Your task to perform on an android device: turn off sleep mode Image 0: 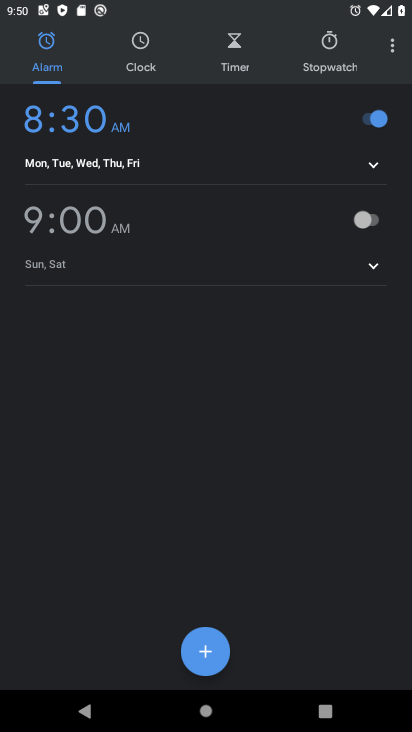
Step 0: press back button
Your task to perform on an android device: turn off sleep mode Image 1: 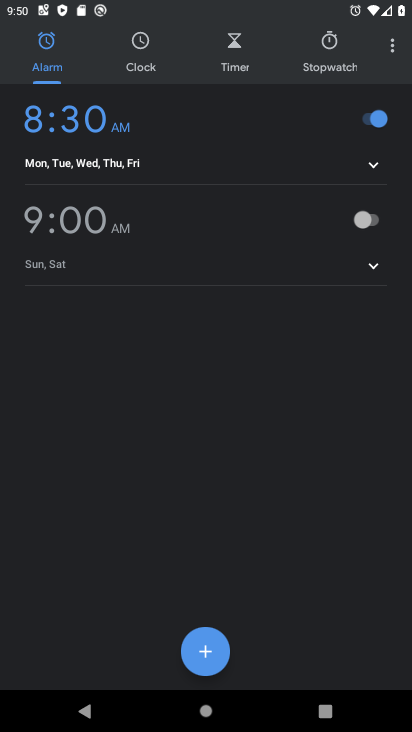
Step 1: press back button
Your task to perform on an android device: turn off sleep mode Image 2: 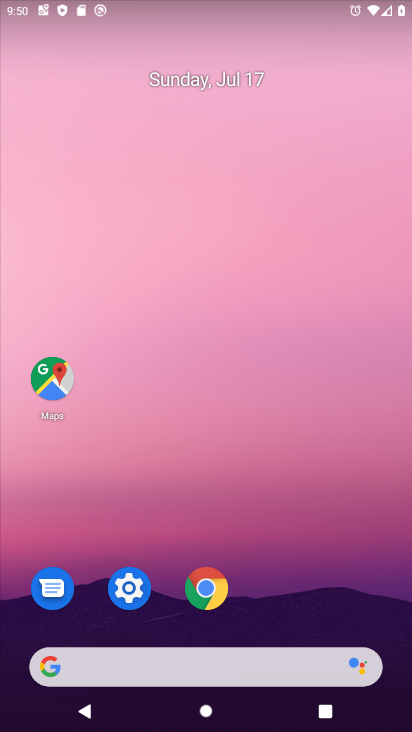
Step 2: drag from (308, 607) to (283, 38)
Your task to perform on an android device: turn off sleep mode Image 3: 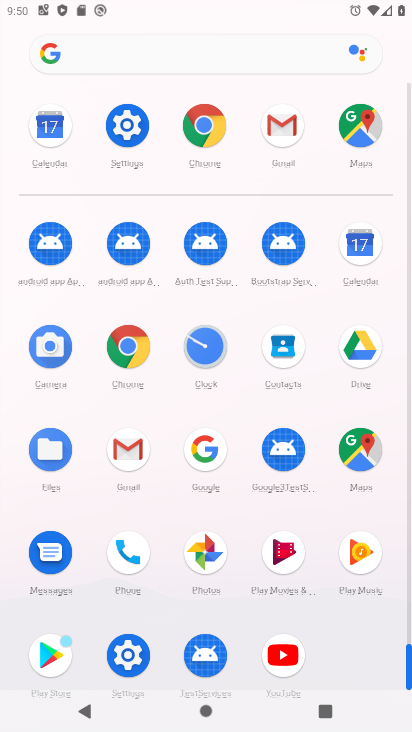
Step 3: click (133, 121)
Your task to perform on an android device: turn off sleep mode Image 4: 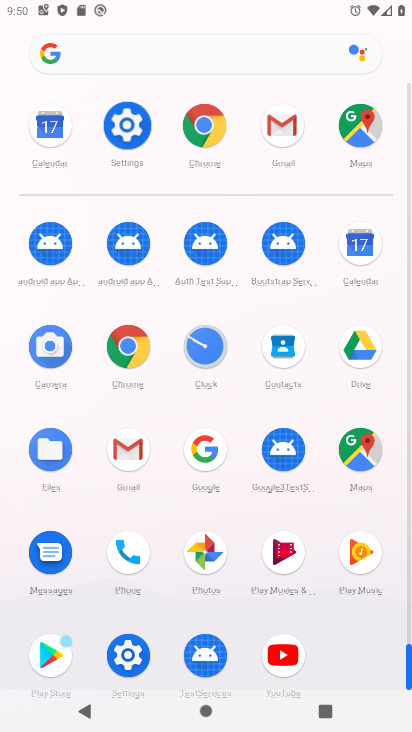
Step 4: click (132, 122)
Your task to perform on an android device: turn off sleep mode Image 5: 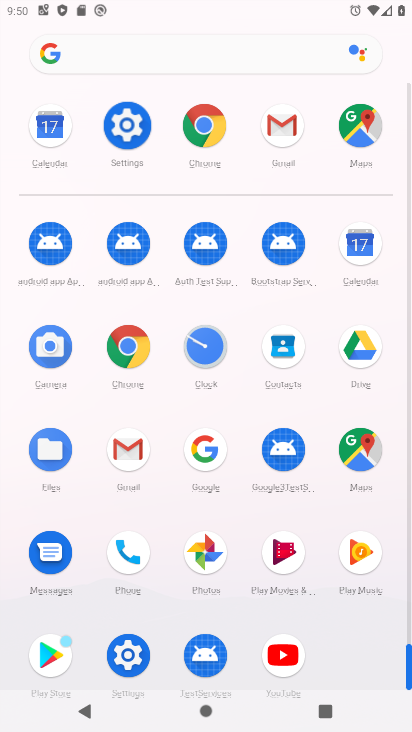
Step 5: click (131, 122)
Your task to perform on an android device: turn off sleep mode Image 6: 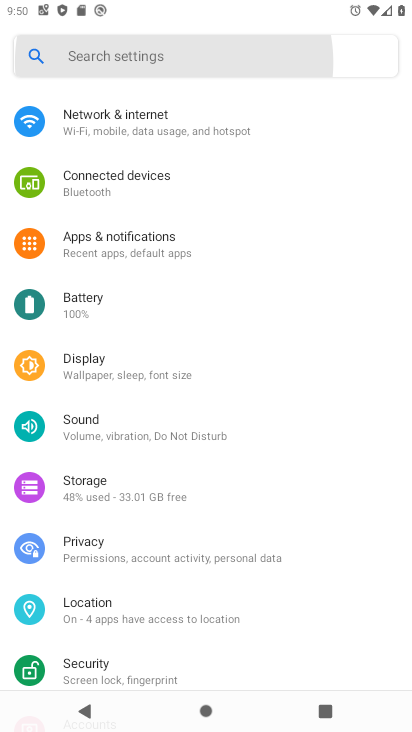
Step 6: click (130, 122)
Your task to perform on an android device: turn off sleep mode Image 7: 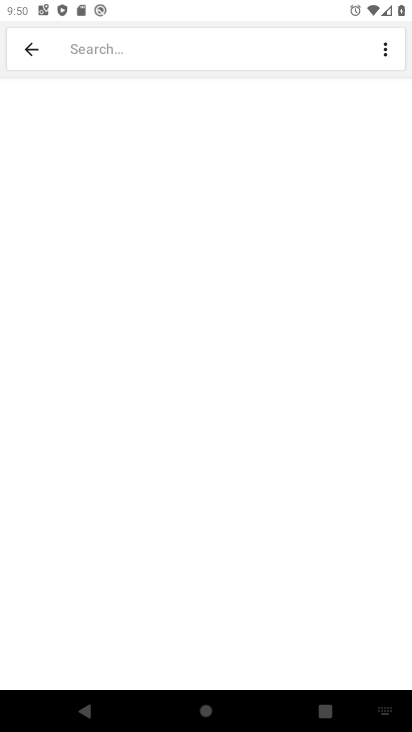
Step 7: click (26, 48)
Your task to perform on an android device: turn off sleep mode Image 8: 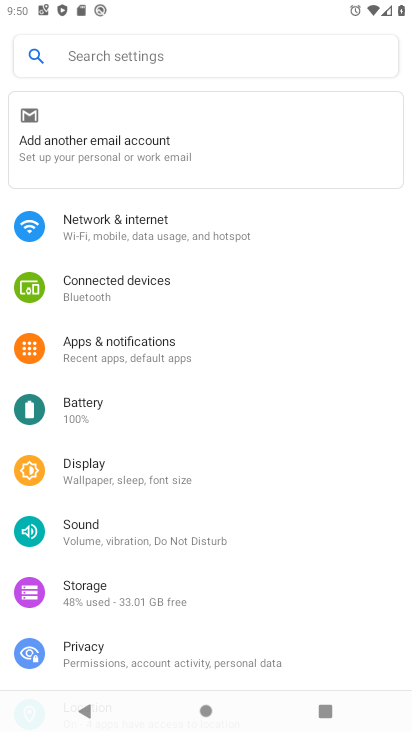
Step 8: click (88, 472)
Your task to perform on an android device: turn off sleep mode Image 9: 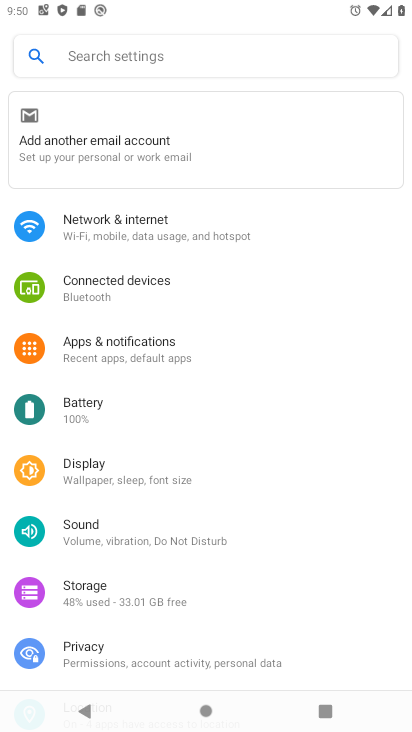
Step 9: click (77, 475)
Your task to perform on an android device: turn off sleep mode Image 10: 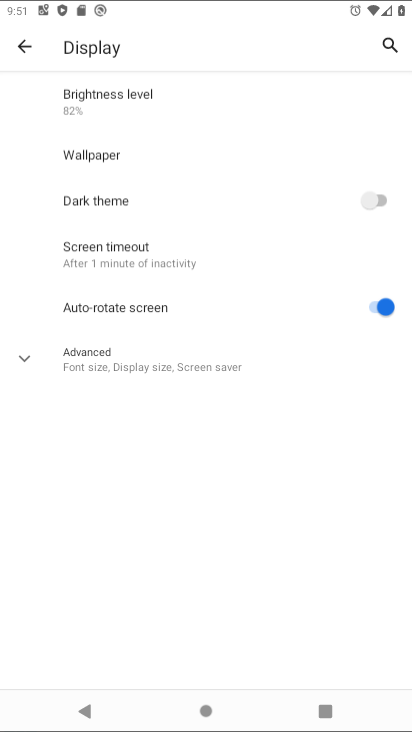
Step 10: click (76, 474)
Your task to perform on an android device: turn off sleep mode Image 11: 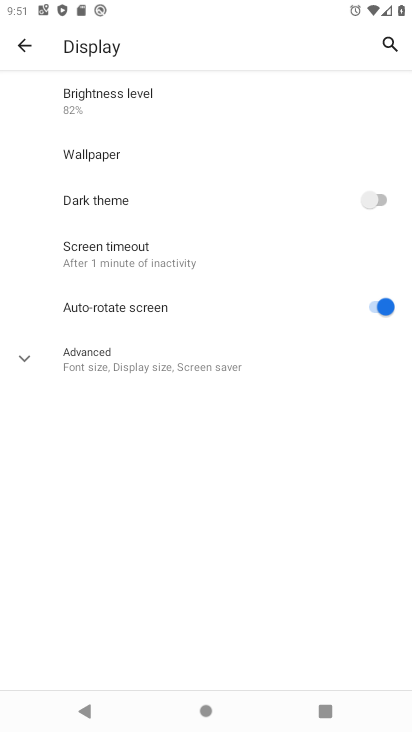
Step 11: click (71, 255)
Your task to perform on an android device: turn off sleep mode Image 12: 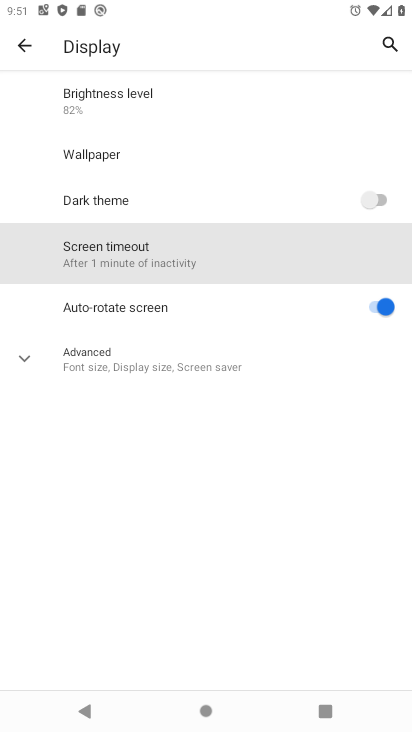
Step 12: click (72, 254)
Your task to perform on an android device: turn off sleep mode Image 13: 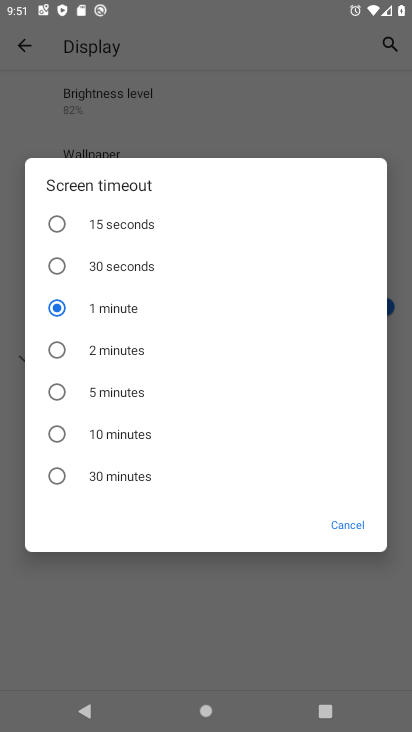
Step 13: task complete